Your task to perform on an android device: Show the shopping cart on costco.com. Search for razer naga on costco.com, select the first entry, and add it to the cart. Image 0: 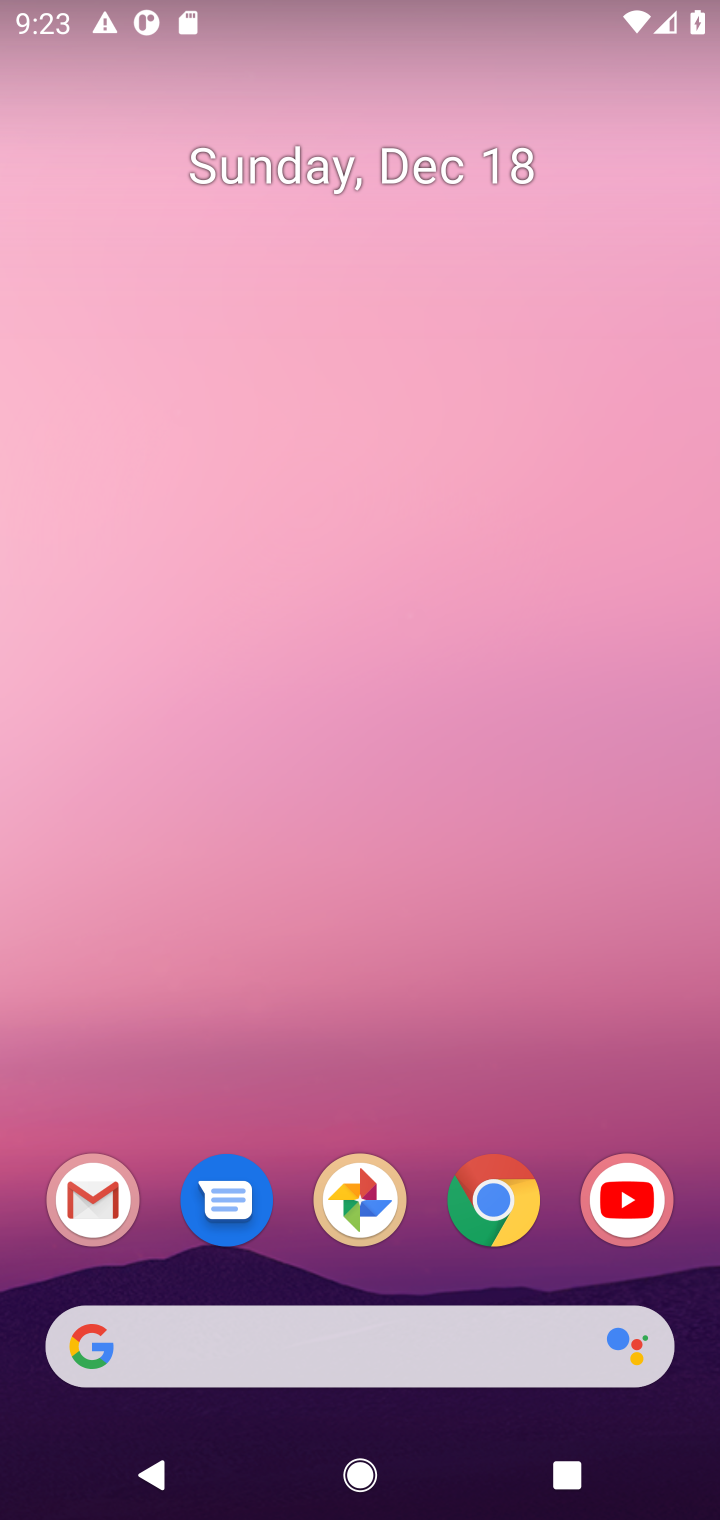
Step 0: click (502, 1201)
Your task to perform on an android device: Show the shopping cart on costco.com. Search for razer naga on costco.com, select the first entry, and add it to the cart. Image 1: 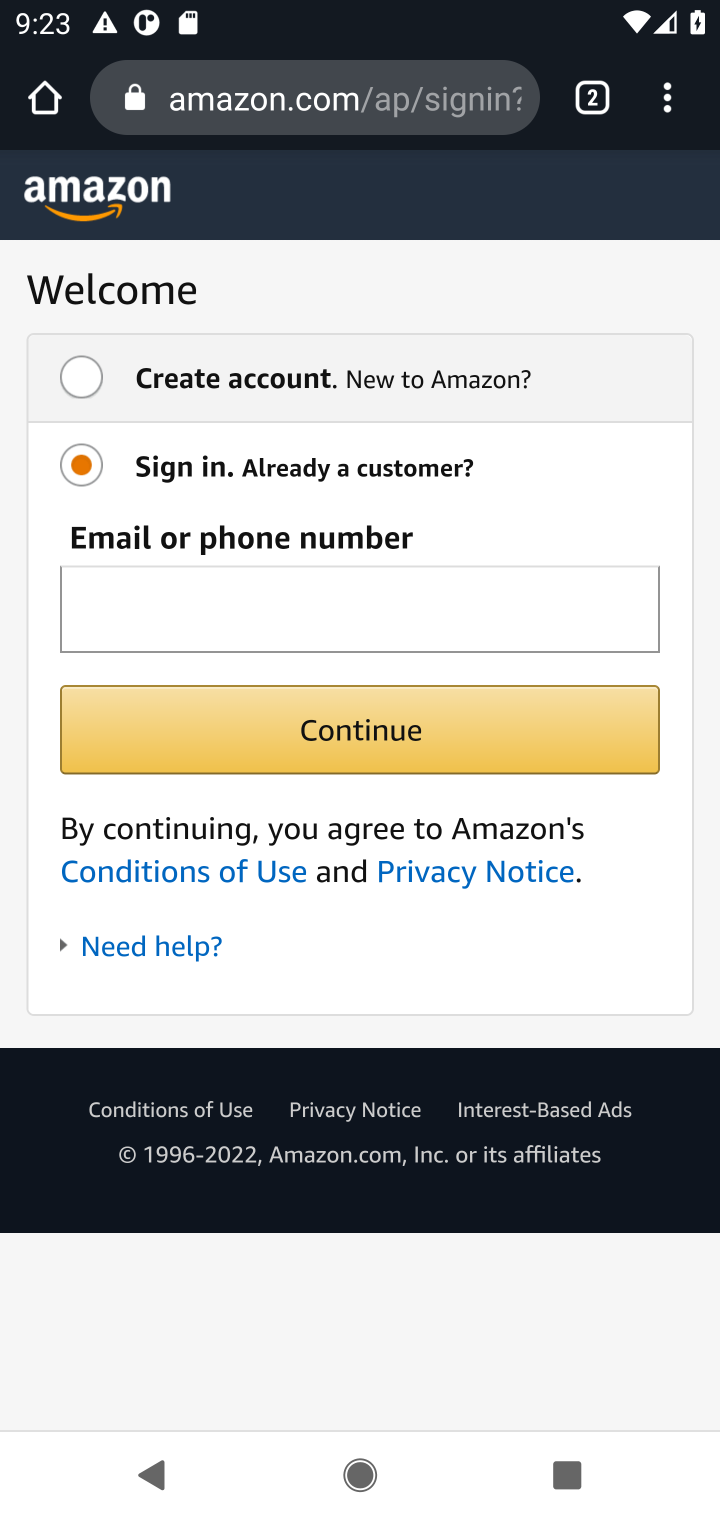
Step 1: click (266, 100)
Your task to perform on an android device: Show the shopping cart on costco.com. Search for razer naga on costco.com, select the first entry, and add it to the cart. Image 2: 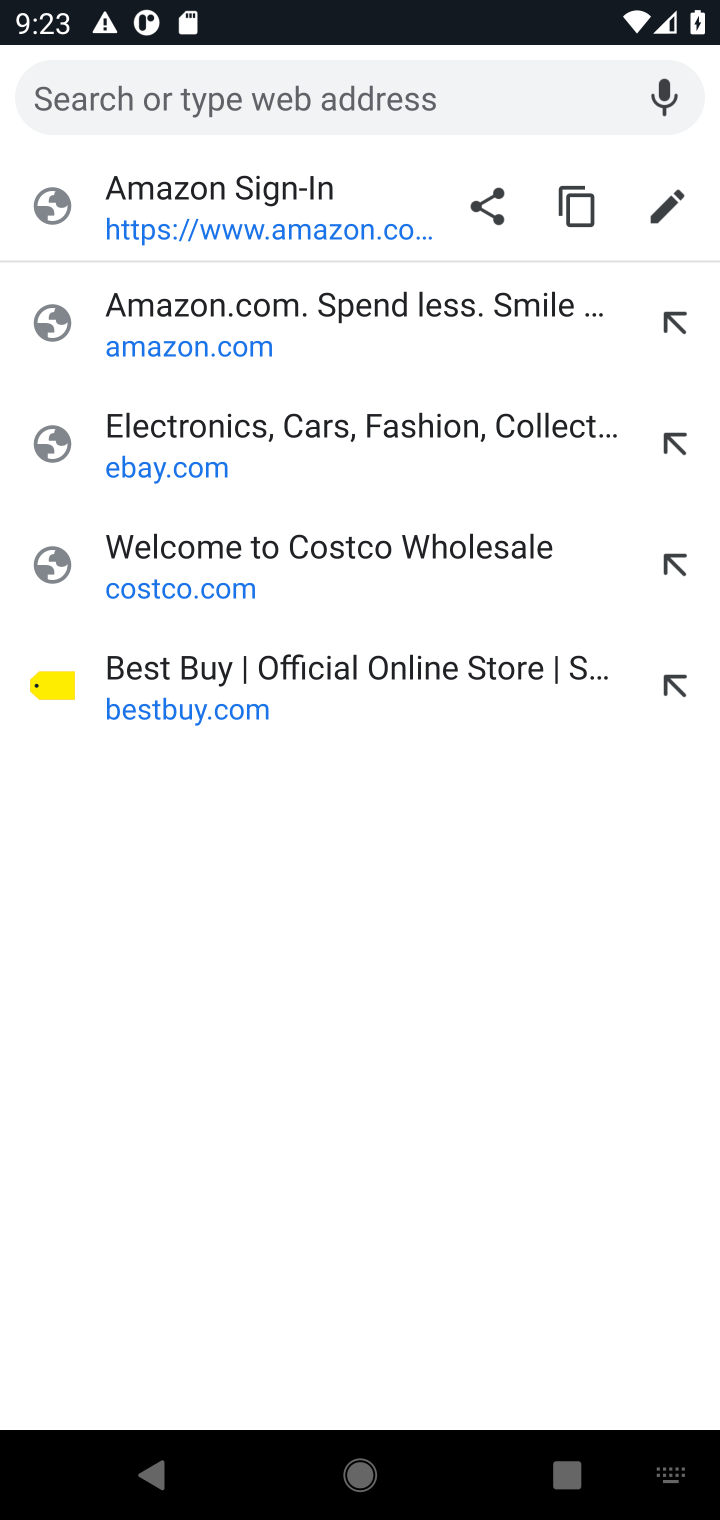
Step 2: click (157, 553)
Your task to perform on an android device: Show the shopping cart on costco.com. Search for razer naga on costco.com, select the first entry, and add it to the cart. Image 3: 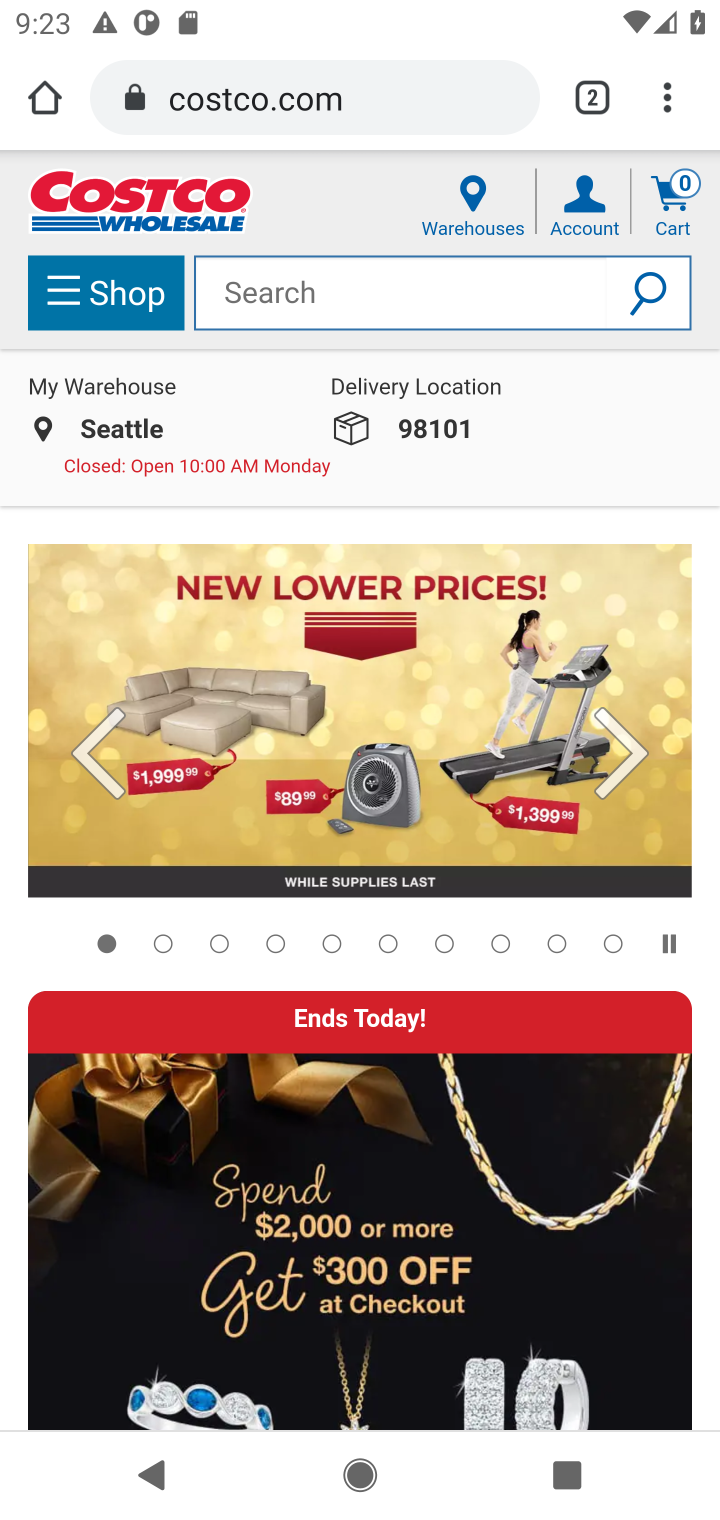
Step 3: click (685, 208)
Your task to perform on an android device: Show the shopping cart on costco.com. Search for razer naga on costco.com, select the first entry, and add it to the cart. Image 4: 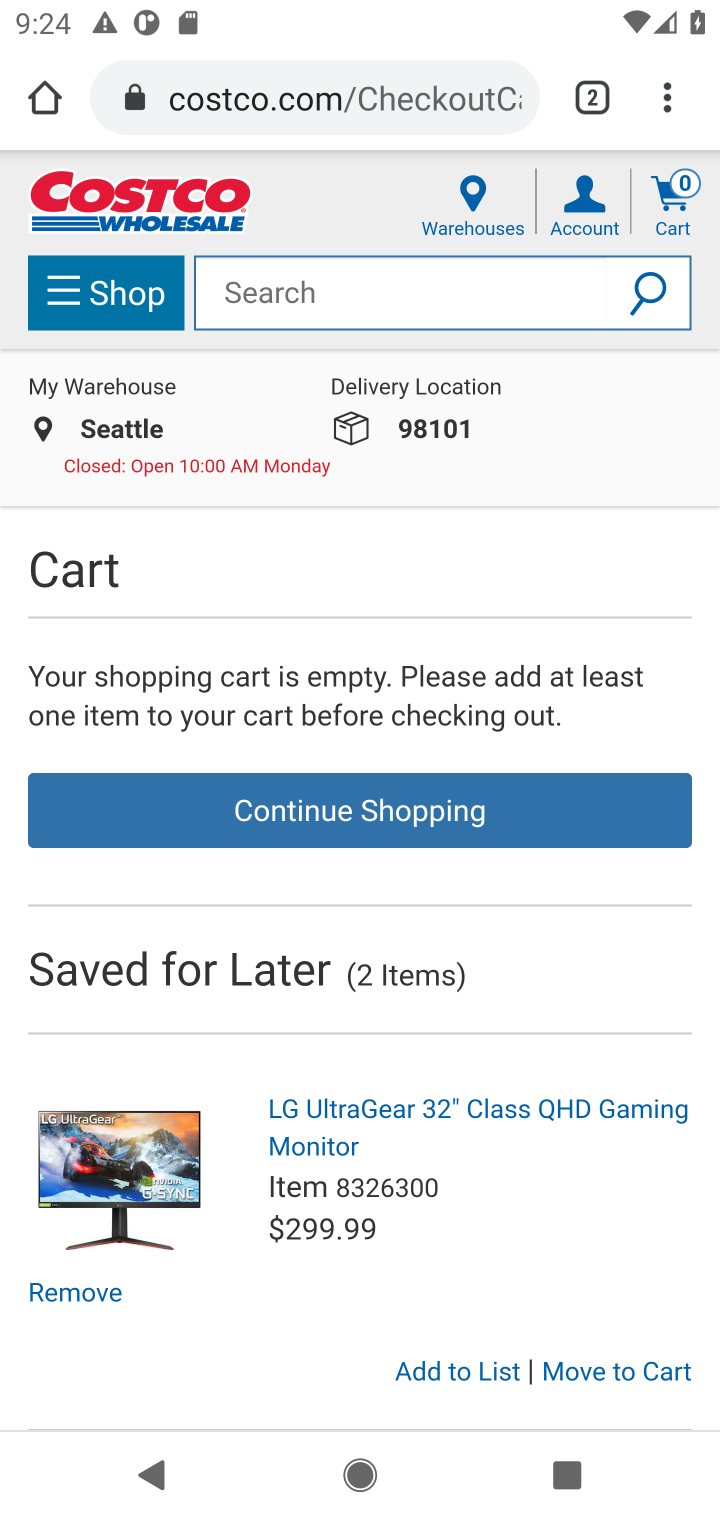
Step 4: click (337, 294)
Your task to perform on an android device: Show the shopping cart on costco.com. Search for razer naga on costco.com, select the first entry, and add it to the cart. Image 5: 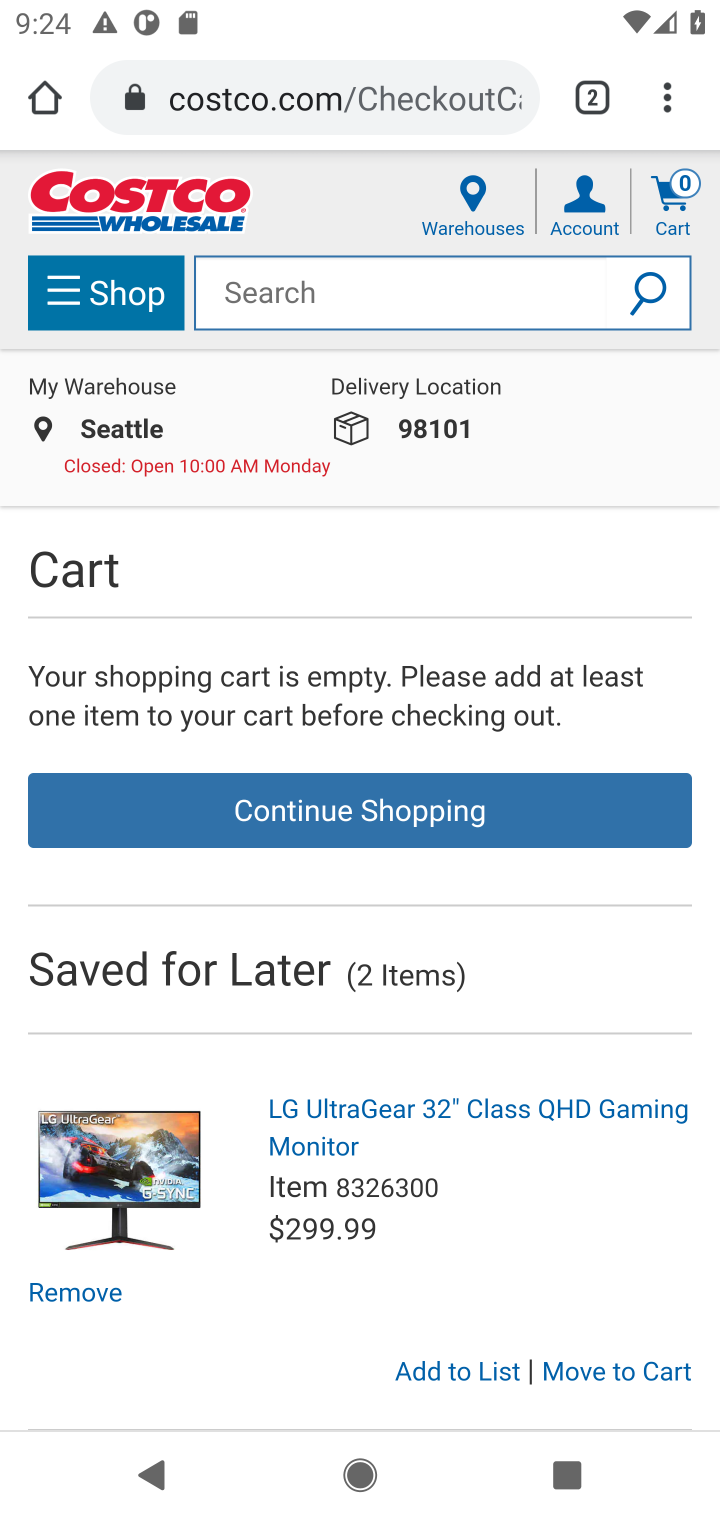
Step 5: click (337, 294)
Your task to perform on an android device: Show the shopping cart on costco.com. Search for razer naga on costco.com, select the first entry, and add it to the cart. Image 6: 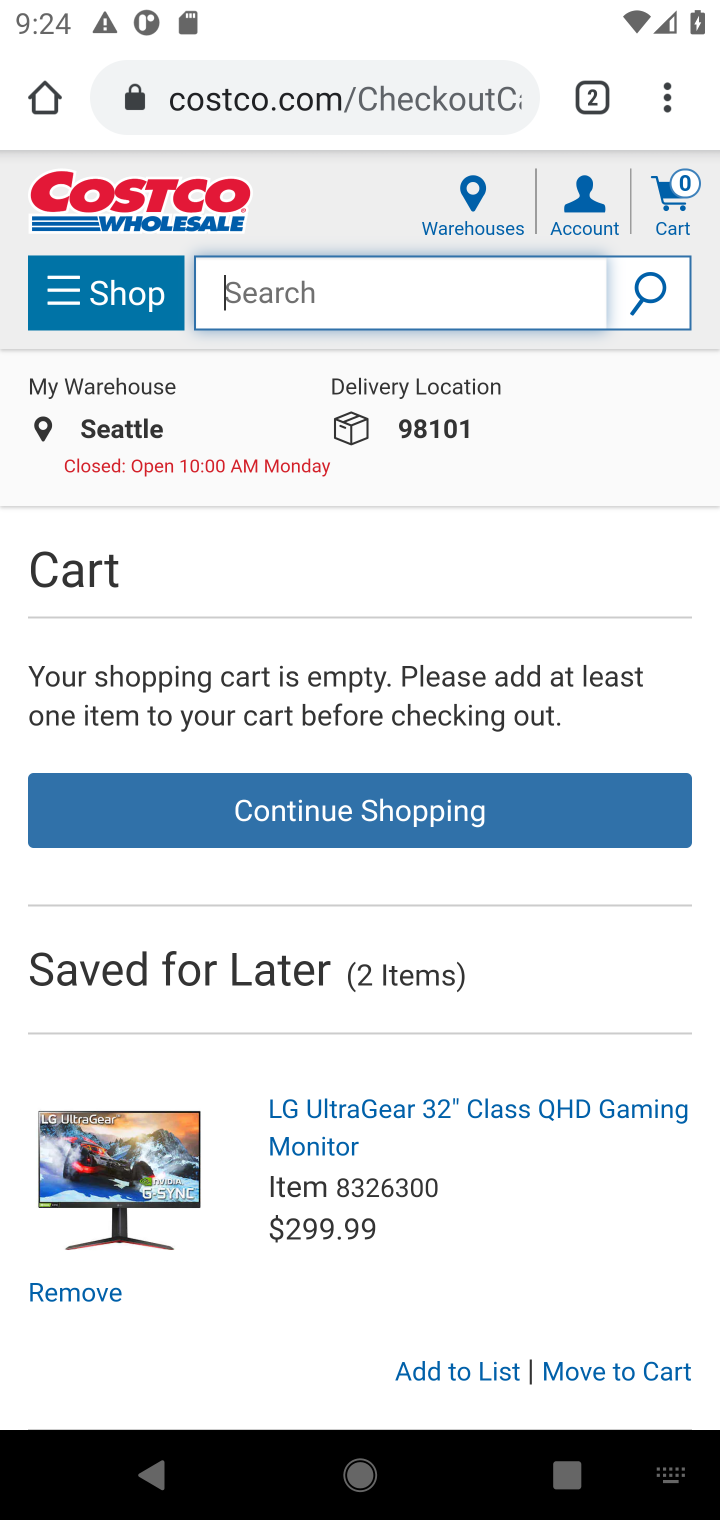
Step 6: type "razer naga "
Your task to perform on an android device: Show the shopping cart on costco.com. Search for razer naga on costco.com, select the first entry, and add it to the cart. Image 7: 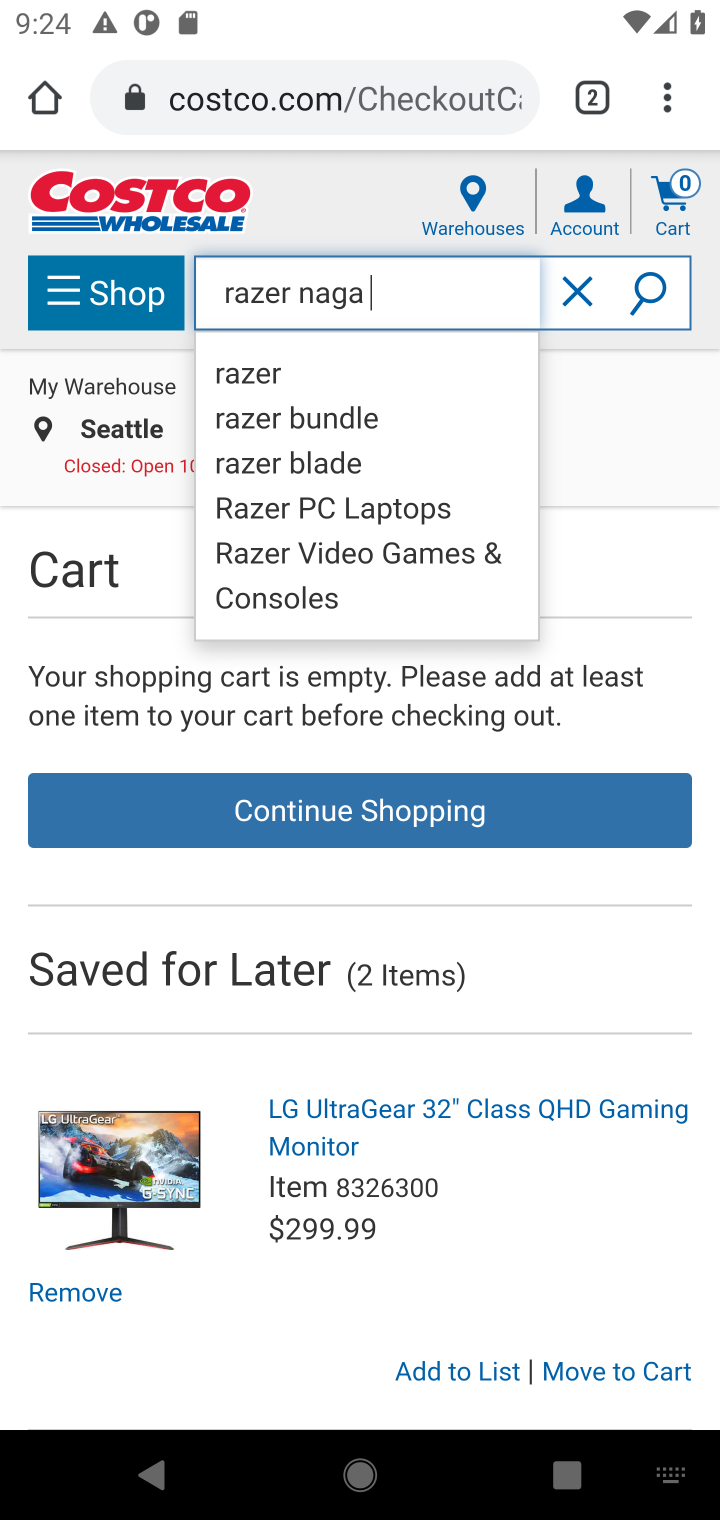
Step 7: click (656, 297)
Your task to perform on an android device: Show the shopping cart on costco.com. Search for razer naga on costco.com, select the first entry, and add it to the cart. Image 8: 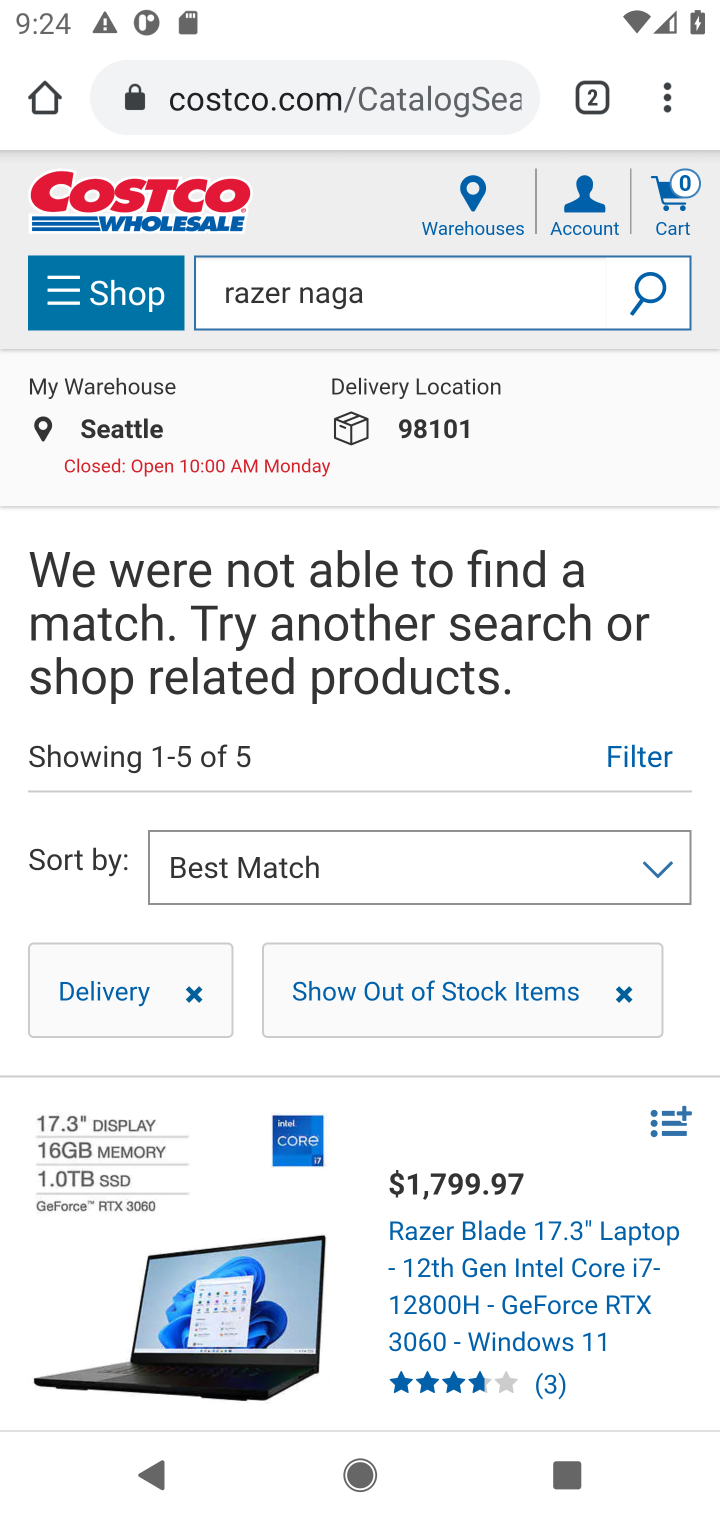
Step 8: task complete